Your task to perform on an android device: Turn on the flashlight Image 0: 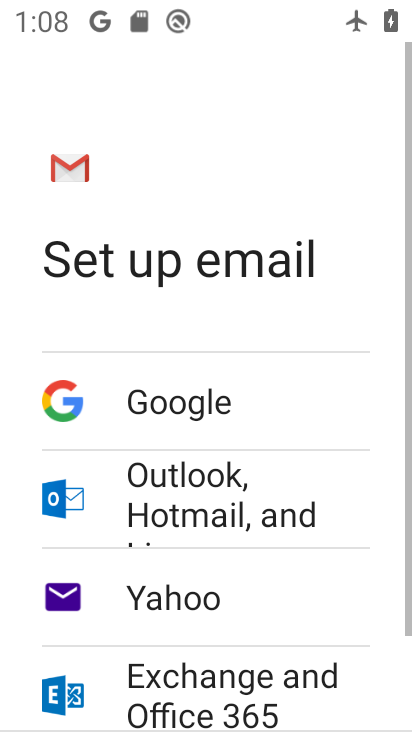
Step 0: click (254, 527)
Your task to perform on an android device: Turn on the flashlight Image 1: 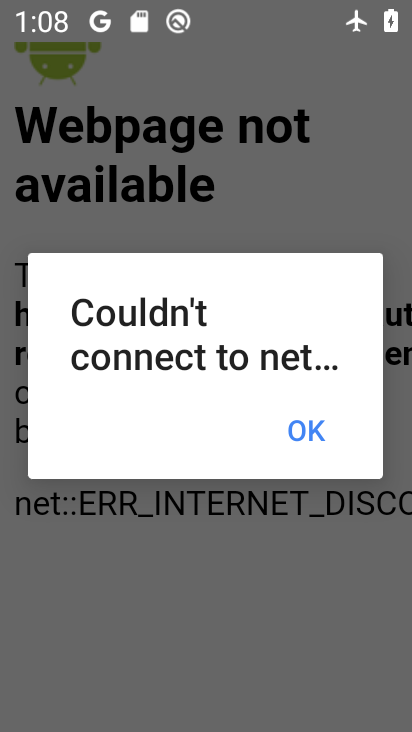
Step 1: press back button
Your task to perform on an android device: Turn on the flashlight Image 2: 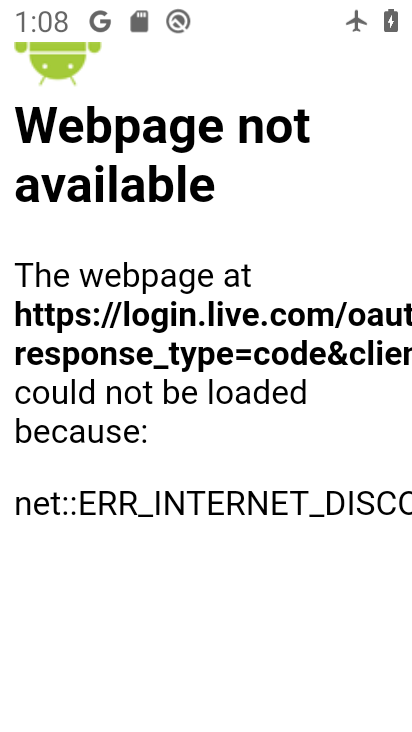
Step 2: press home button
Your task to perform on an android device: Turn on the flashlight Image 3: 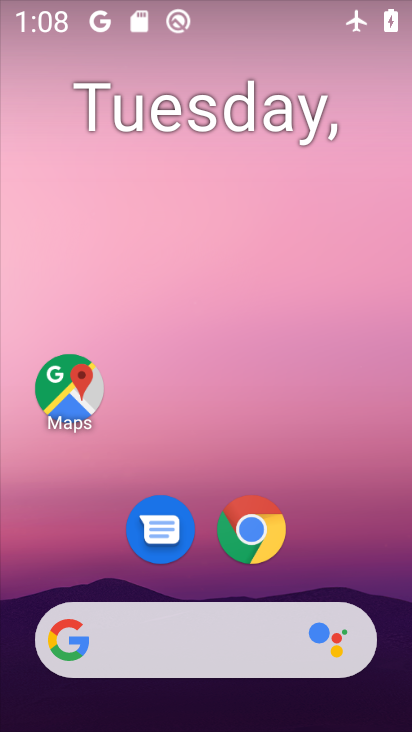
Step 3: click (260, 176)
Your task to perform on an android device: Turn on the flashlight Image 4: 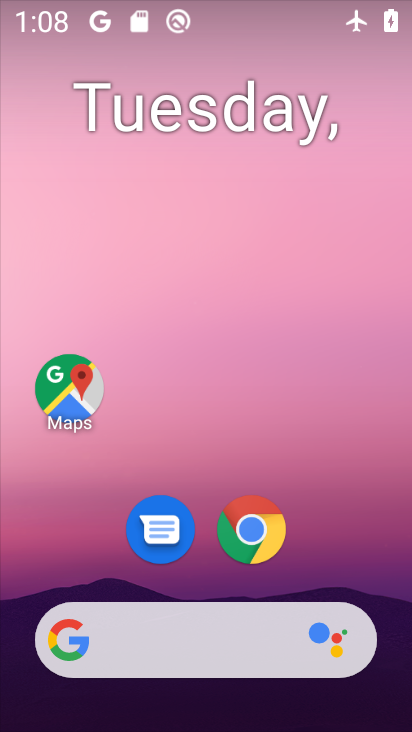
Step 4: drag from (375, 557) to (293, 54)
Your task to perform on an android device: Turn on the flashlight Image 5: 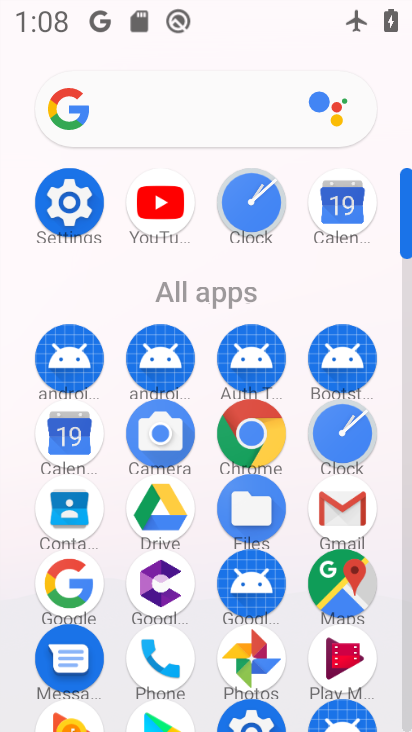
Step 5: click (58, 200)
Your task to perform on an android device: Turn on the flashlight Image 6: 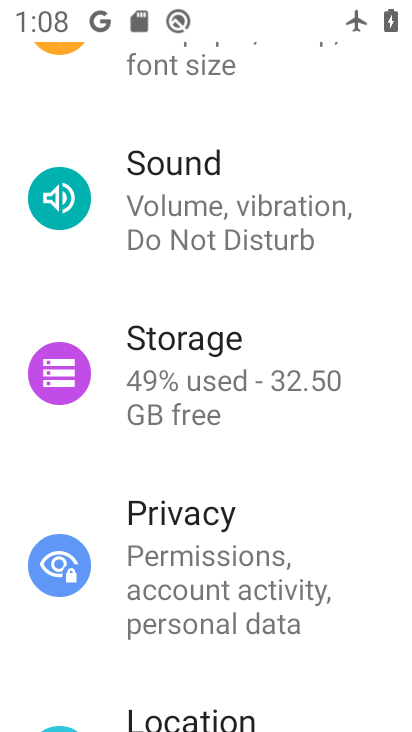
Step 6: drag from (318, 163) to (319, 639)
Your task to perform on an android device: Turn on the flashlight Image 7: 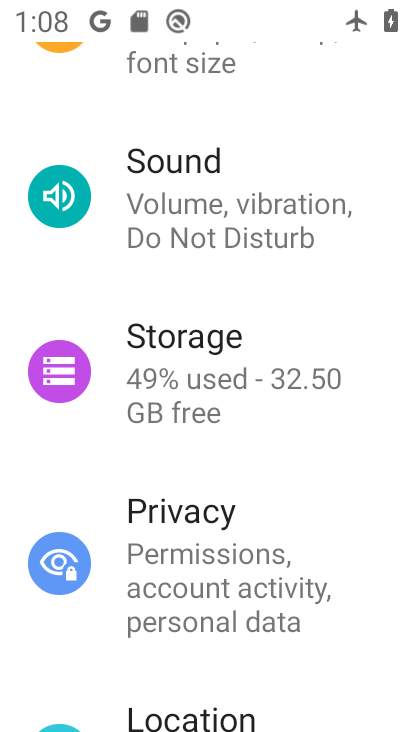
Step 7: drag from (343, 589) to (347, 704)
Your task to perform on an android device: Turn on the flashlight Image 8: 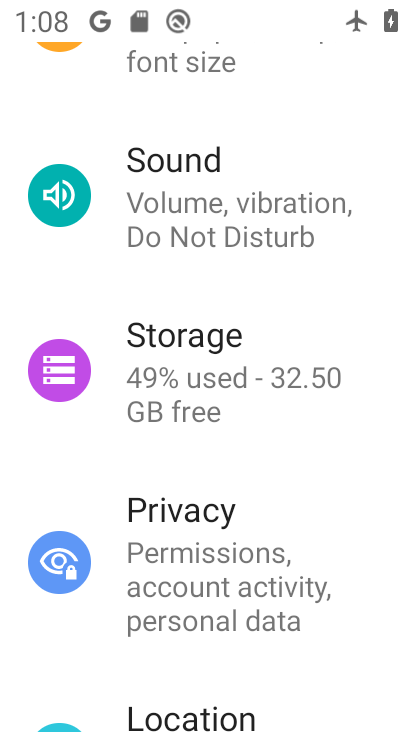
Step 8: drag from (376, 182) to (371, 663)
Your task to perform on an android device: Turn on the flashlight Image 9: 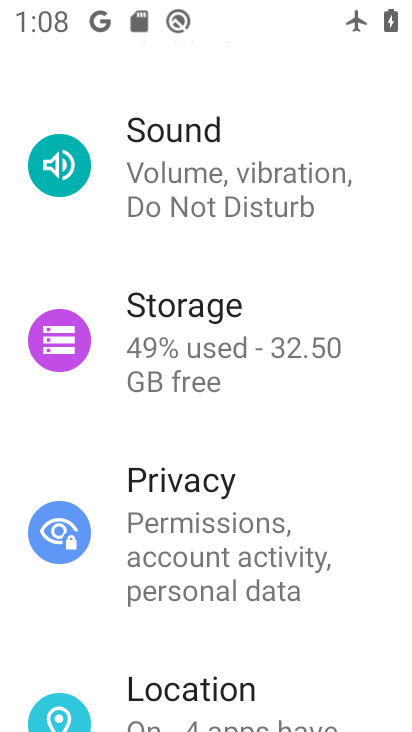
Step 9: drag from (348, 155) to (361, 479)
Your task to perform on an android device: Turn on the flashlight Image 10: 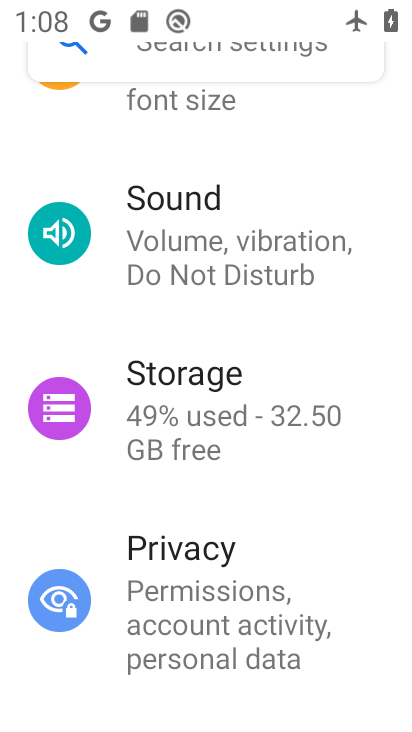
Step 10: drag from (375, 373) to (374, 501)
Your task to perform on an android device: Turn on the flashlight Image 11: 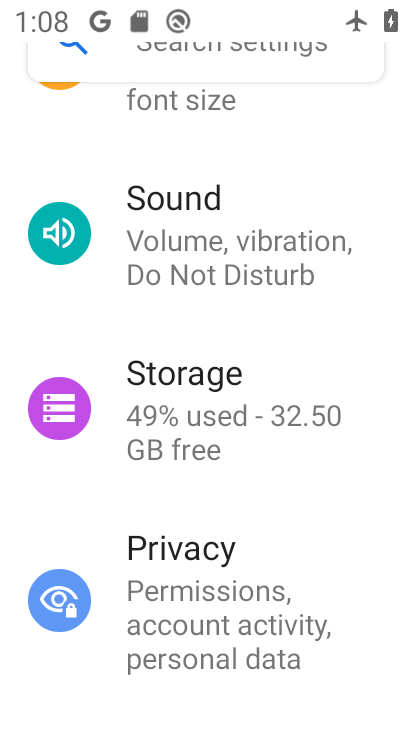
Step 11: drag from (369, 686) to (368, 724)
Your task to perform on an android device: Turn on the flashlight Image 12: 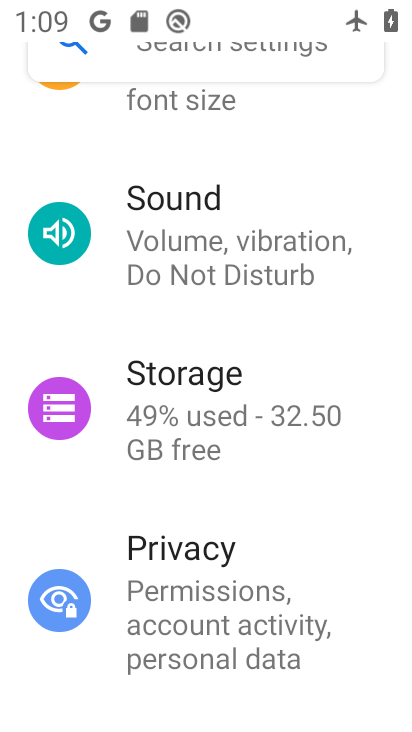
Step 12: drag from (325, 407) to (235, 725)
Your task to perform on an android device: Turn on the flashlight Image 13: 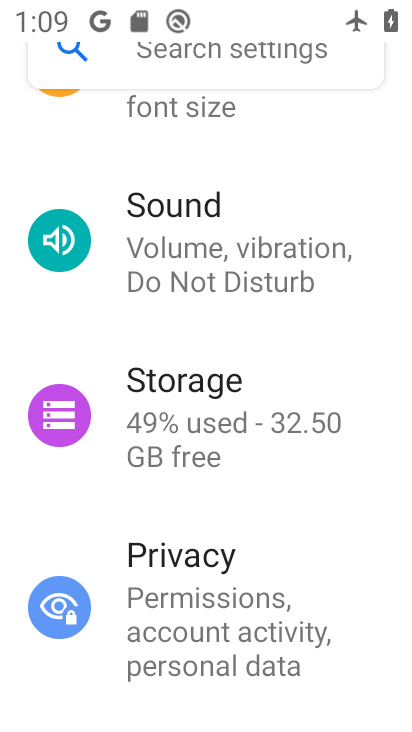
Step 13: drag from (370, 468) to (359, 687)
Your task to perform on an android device: Turn on the flashlight Image 14: 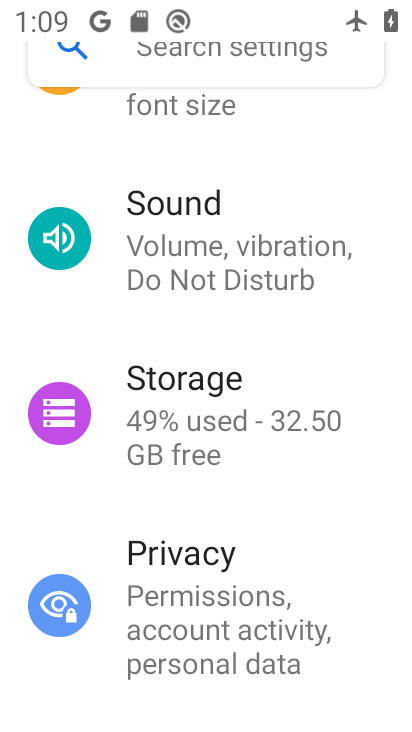
Step 14: drag from (353, 223) to (334, 628)
Your task to perform on an android device: Turn on the flashlight Image 15: 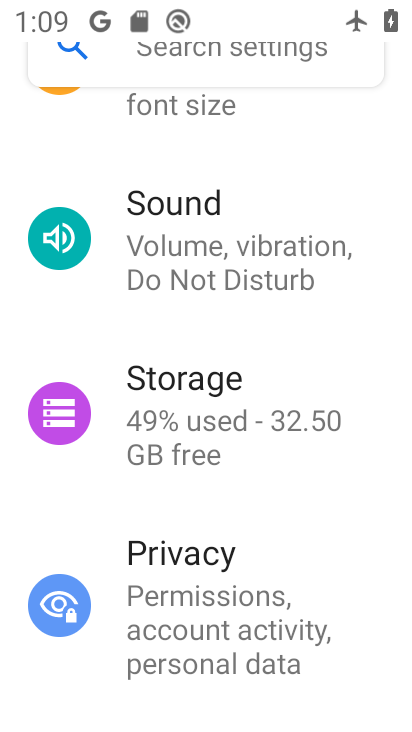
Step 15: drag from (388, 164) to (396, 457)
Your task to perform on an android device: Turn on the flashlight Image 16: 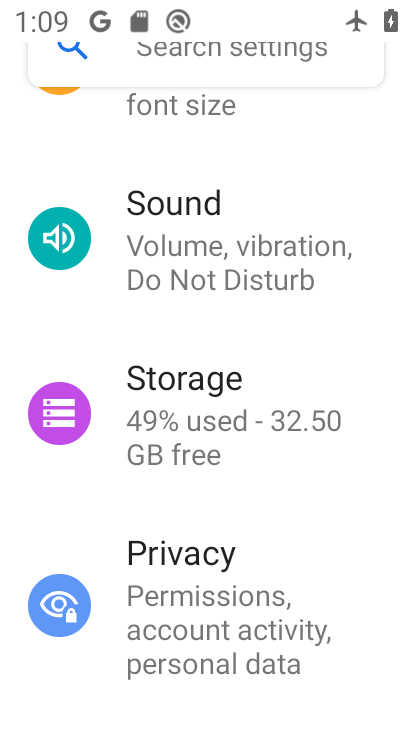
Step 16: drag from (383, 400) to (384, 727)
Your task to perform on an android device: Turn on the flashlight Image 17: 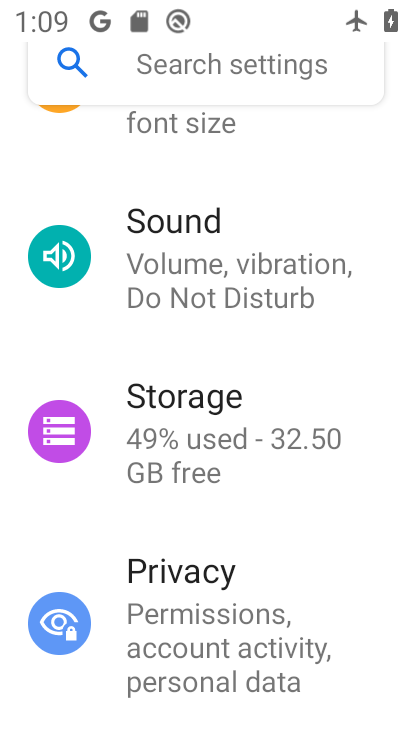
Step 17: drag from (355, 166) to (407, 550)
Your task to perform on an android device: Turn on the flashlight Image 18: 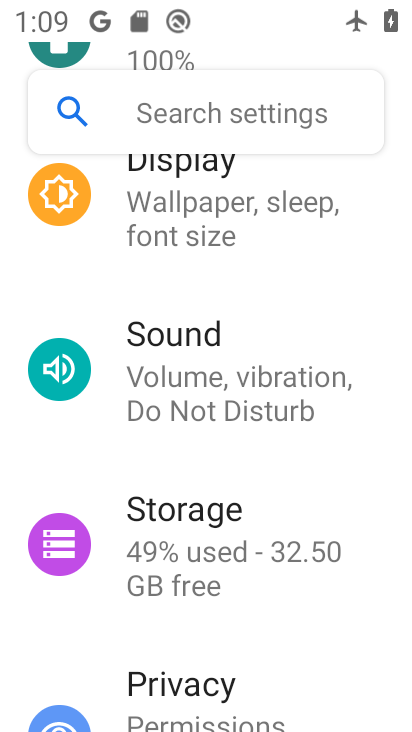
Step 18: drag from (369, 441) to (393, 666)
Your task to perform on an android device: Turn on the flashlight Image 19: 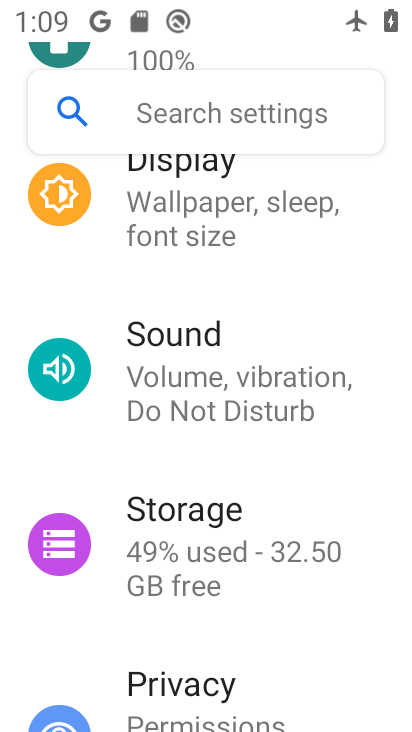
Step 19: drag from (369, 186) to (351, 731)
Your task to perform on an android device: Turn on the flashlight Image 20: 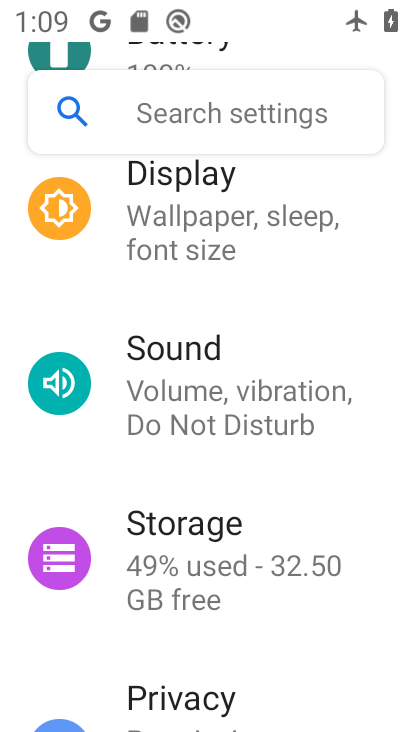
Step 20: drag from (362, 213) to (382, 668)
Your task to perform on an android device: Turn on the flashlight Image 21: 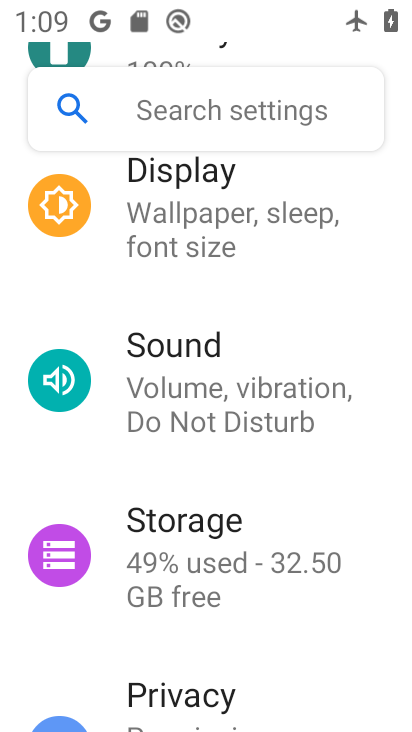
Step 21: drag from (362, 201) to (375, 608)
Your task to perform on an android device: Turn on the flashlight Image 22: 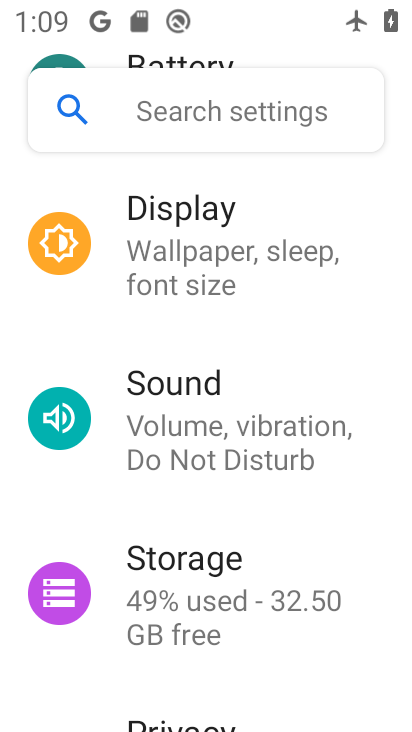
Step 22: drag from (388, 352) to (407, 712)
Your task to perform on an android device: Turn on the flashlight Image 23: 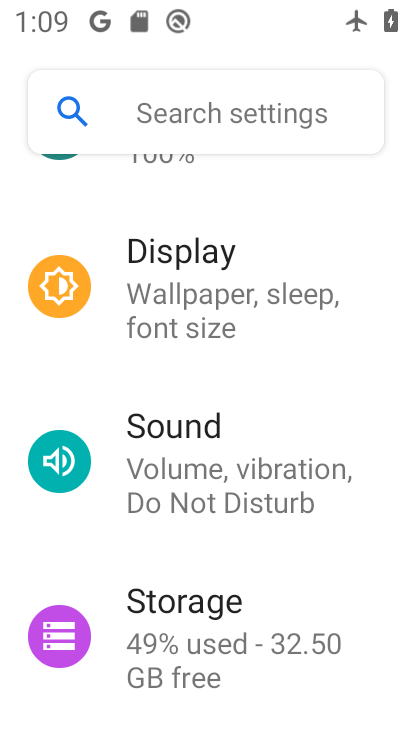
Step 23: drag from (361, 386) to (349, 728)
Your task to perform on an android device: Turn on the flashlight Image 24: 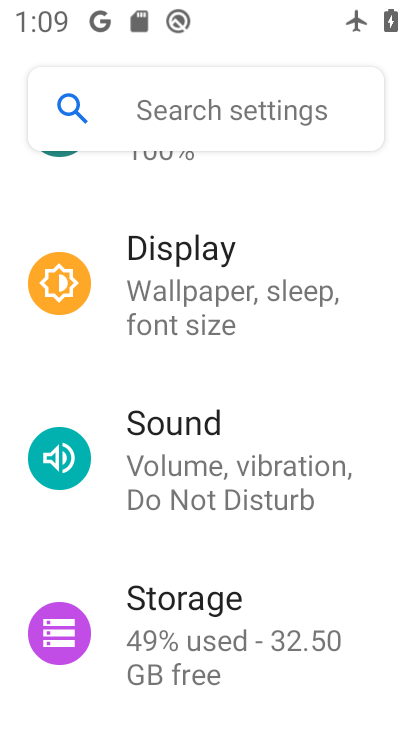
Step 24: drag from (380, 467) to (379, 726)
Your task to perform on an android device: Turn on the flashlight Image 25: 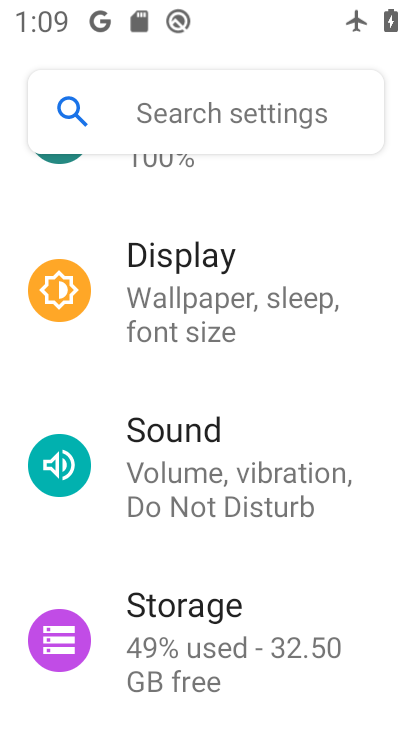
Step 25: drag from (378, 287) to (393, 586)
Your task to perform on an android device: Turn on the flashlight Image 26: 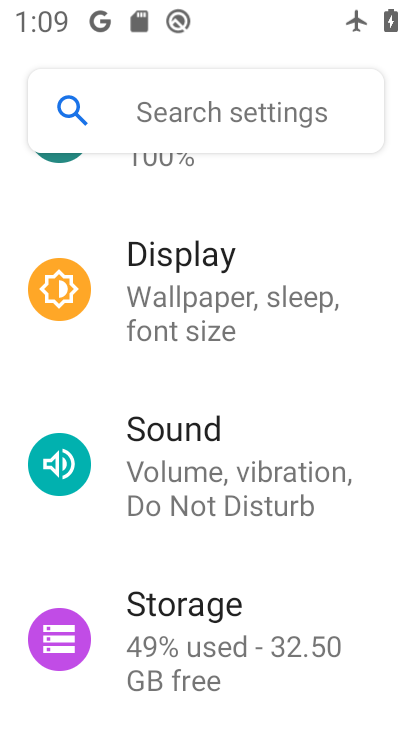
Step 26: drag from (360, 194) to (371, 558)
Your task to perform on an android device: Turn on the flashlight Image 27: 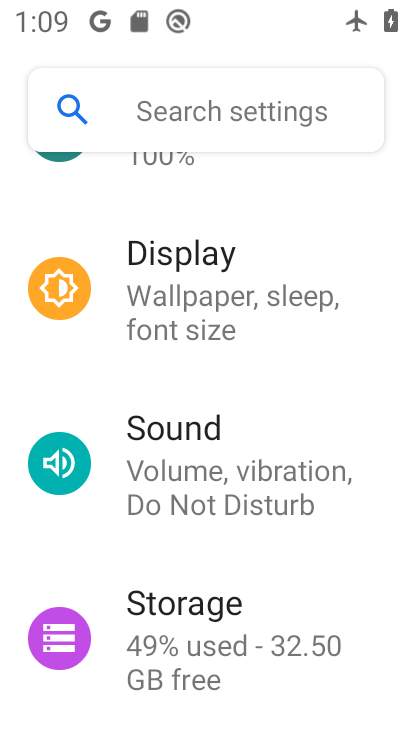
Step 27: drag from (377, 246) to (371, 698)
Your task to perform on an android device: Turn on the flashlight Image 28: 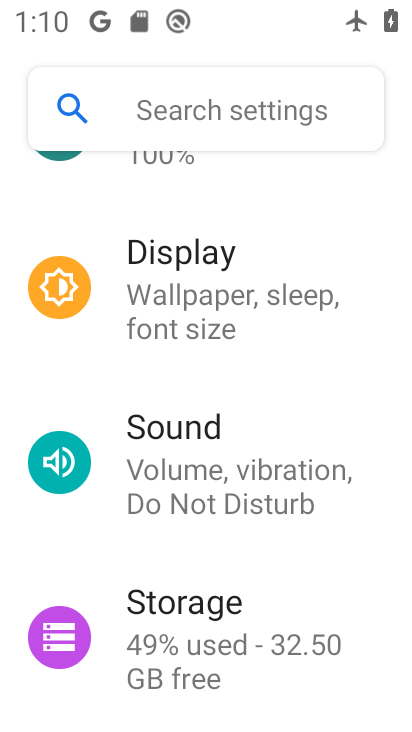
Step 28: drag from (371, 229) to (386, 659)
Your task to perform on an android device: Turn on the flashlight Image 29: 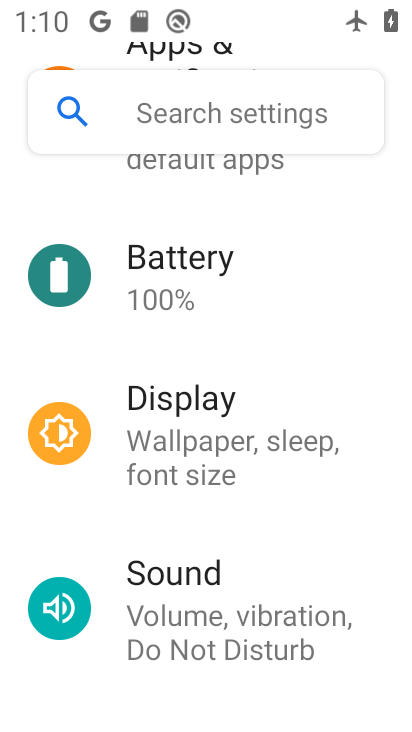
Step 29: drag from (356, 312) to (356, 701)
Your task to perform on an android device: Turn on the flashlight Image 30: 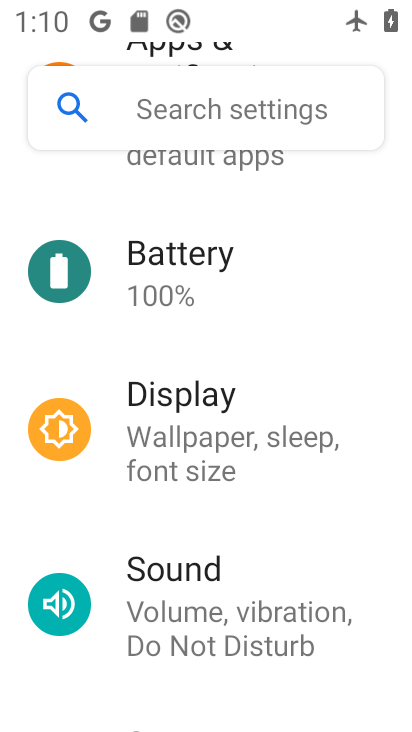
Step 30: drag from (341, 218) to (382, 661)
Your task to perform on an android device: Turn on the flashlight Image 31: 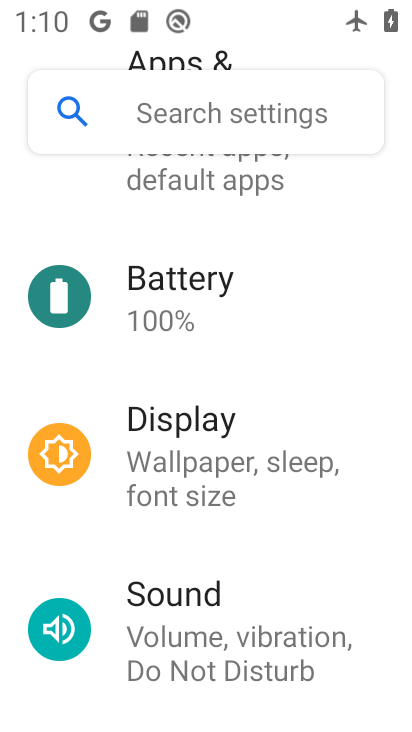
Step 31: drag from (353, 274) to (358, 595)
Your task to perform on an android device: Turn on the flashlight Image 32: 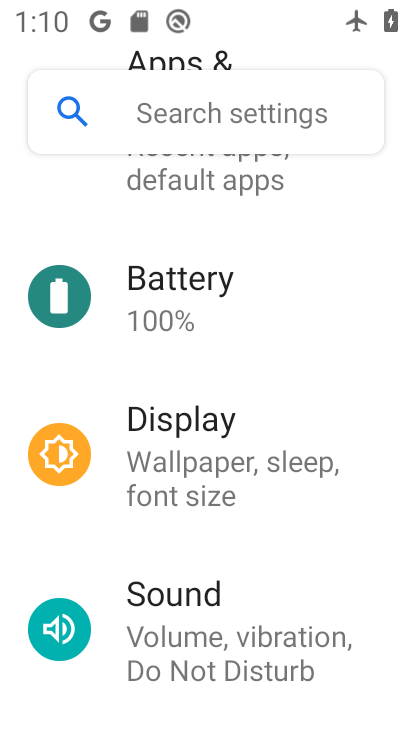
Step 32: drag from (342, 274) to (386, 613)
Your task to perform on an android device: Turn on the flashlight Image 33: 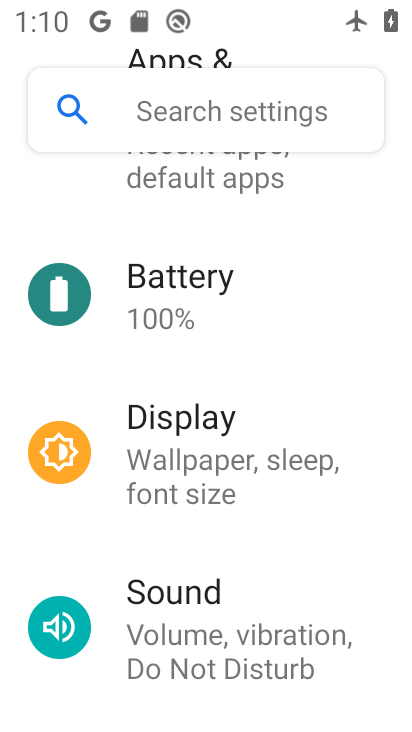
Step 33: drag from (362, 453) to (397, 731)
Your task to perform on an android device: Turn on the flashlight Image 34: 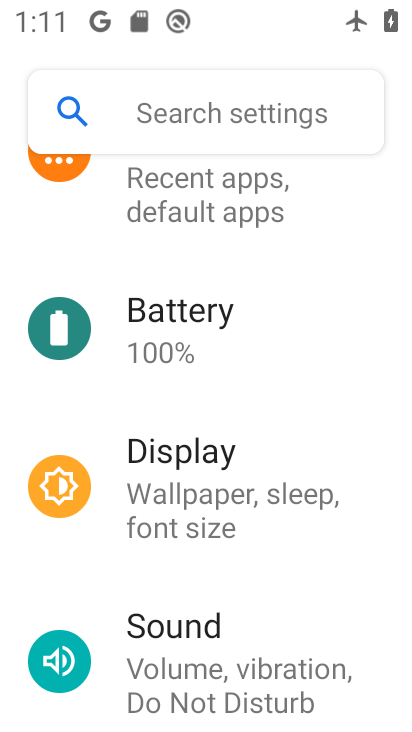
Step 34: click (357, 580)
Your task to perform on an android device: Turn on the flashlight Image 35: 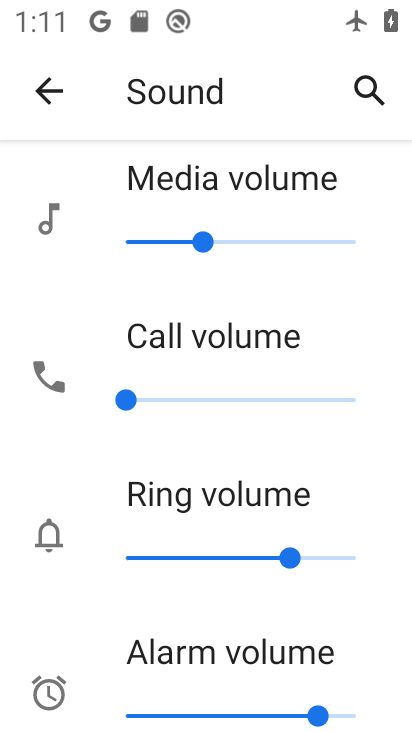
Step 35: task complete